Your task to perform on an android device: What is the news today? Image 0: 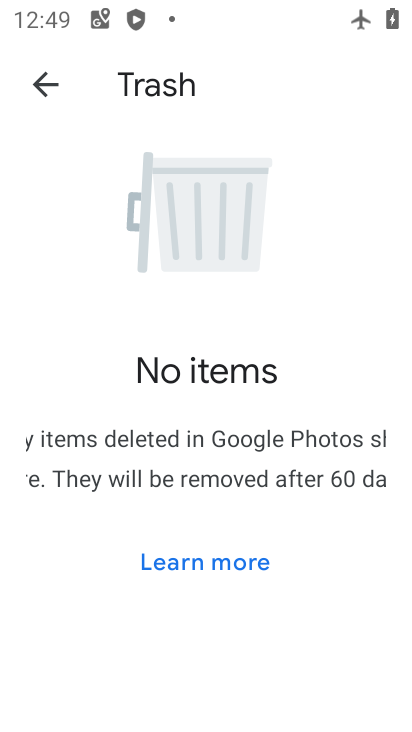
Step 0: press home button
Your task to perform on an android device: What is the news today? Image 1: 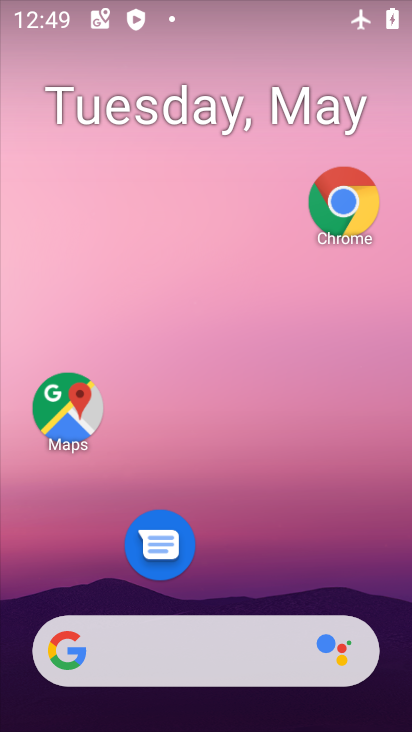
Step 1: click (155, 657)
Your task to perform on an android device: What is the news today? Image 2: 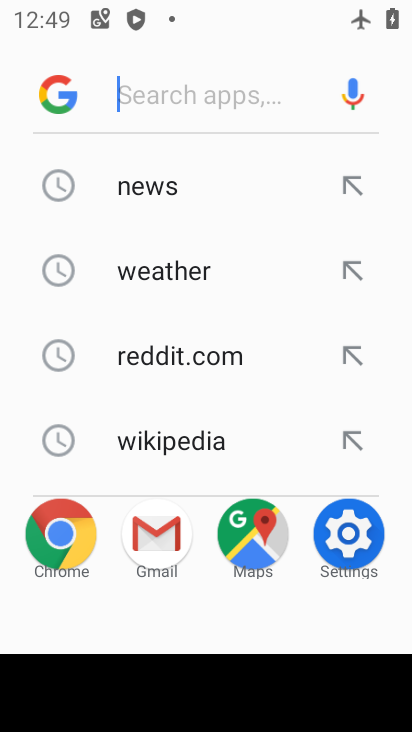
Step 2: click (162, 190)
Your task to perform on an android device: What is the news today? Image 3: 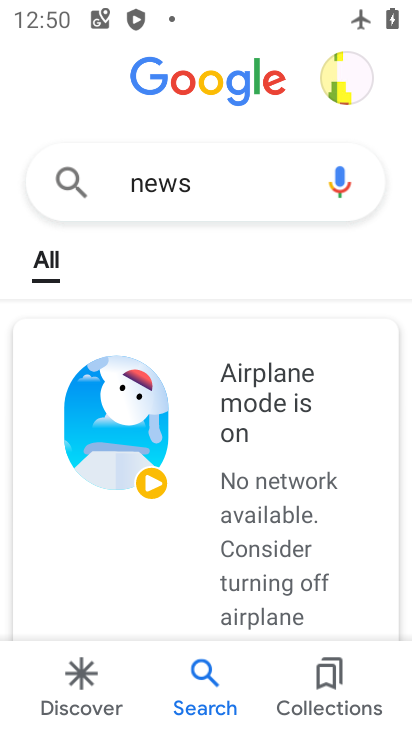
Step 3: task complete